Your task to perform on an android device: Go to calendar. Show me events next week Image 0: 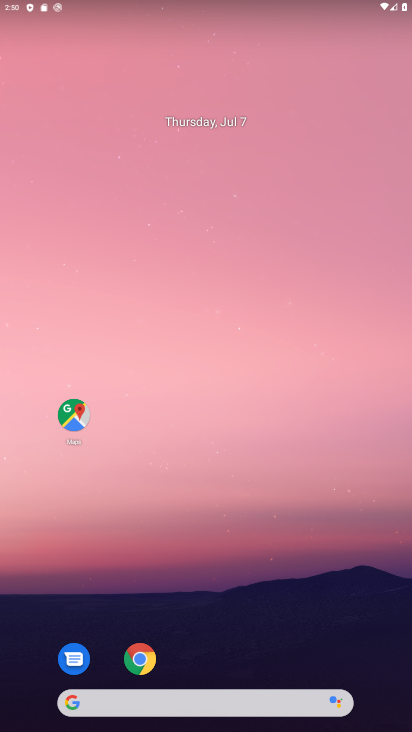
Step 0: drag from (265, 644) to (131, 84)
Your task to perform on an android device: Go to calendar. Show me events next week Image 1: 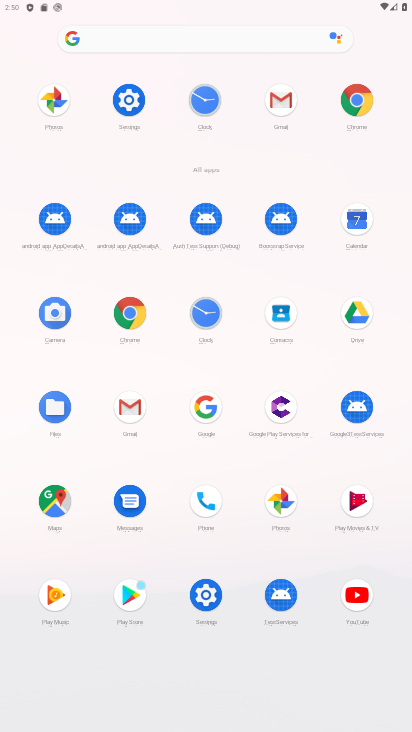
Step 1: click (359, 222)
Your task to perform on an android device: Go to calendar. Show me events next week Image 2: 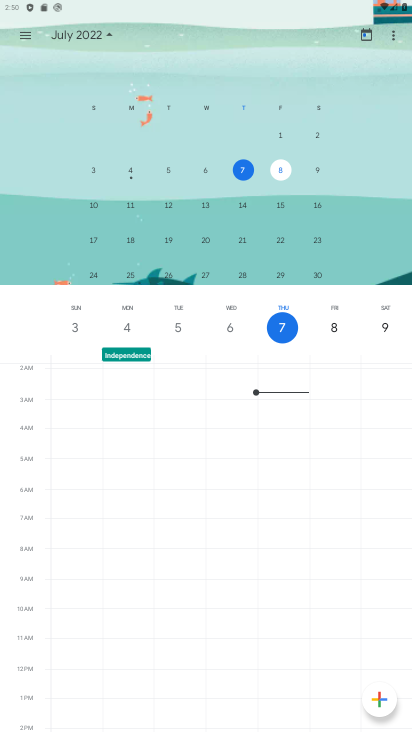
Step 2: click (22, 33)
Your task to perform on an android device: Go to calendar. Show me events next week Image 3: 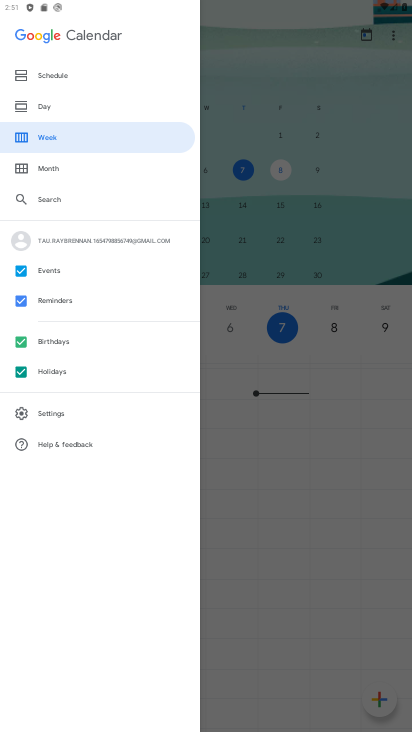
Step 3: click (70, 128)
Your task to perform on an android device: Go to calendar. Show me events next week Image 4: 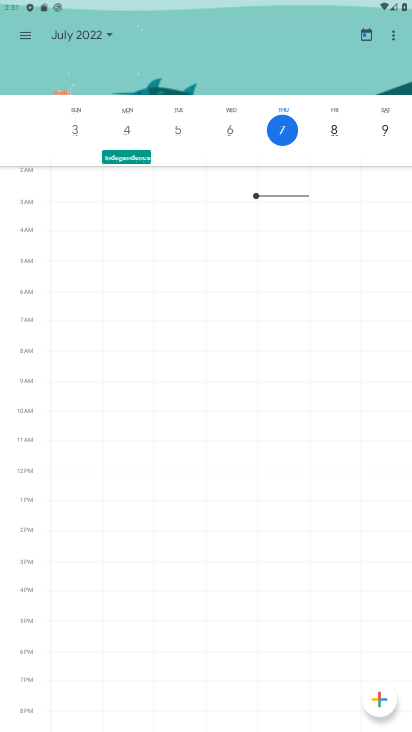
Step 4: task complete